Your task to perform on an android device: install app "Instagram" Image 0: 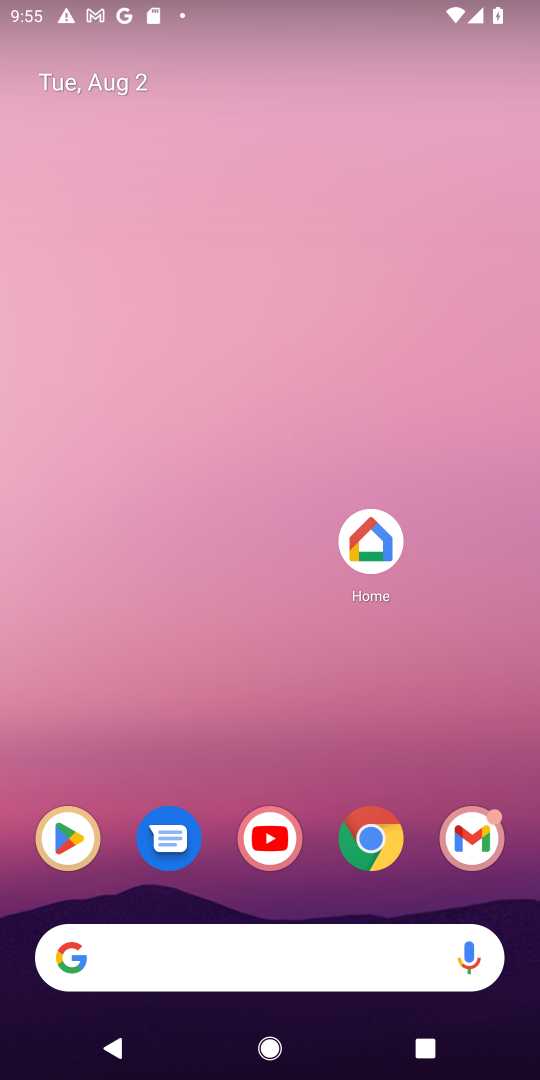
Step 0: press home button
Your task to perform on an android device: install app "Instagram" Image 1: 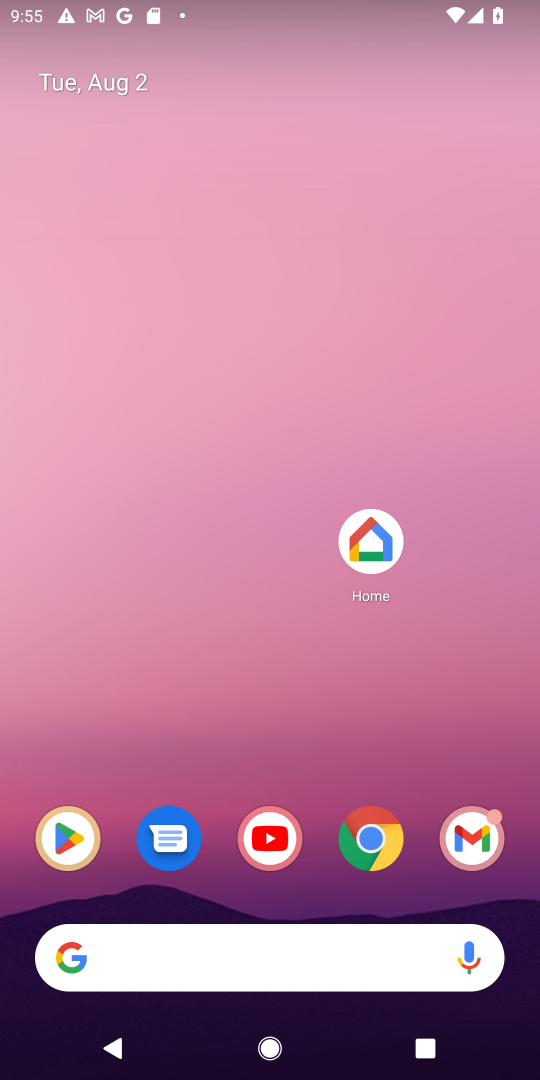
Step 1: drag from (257, 767) to (261, 78)
Your task to perform on an android device: install app "Instagram" Image 2: 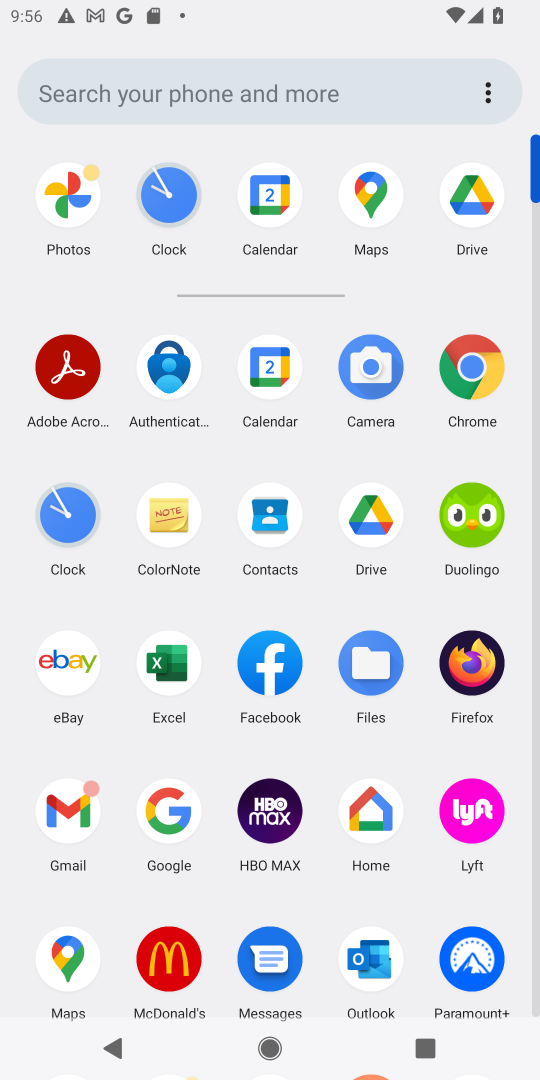
Step 2: drag from (419, 755) to (411, 426)
Your task to perform on an android device: install app "Instagram" Image 3: 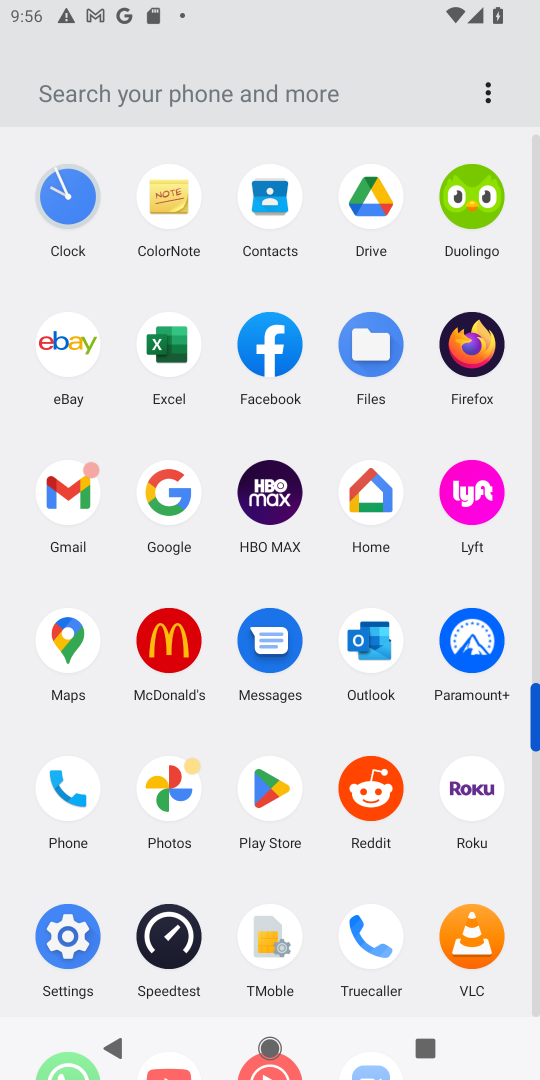
Step 3: click (259, 777)
Your task to perform on an android device: install app "Instagram" Image 4: 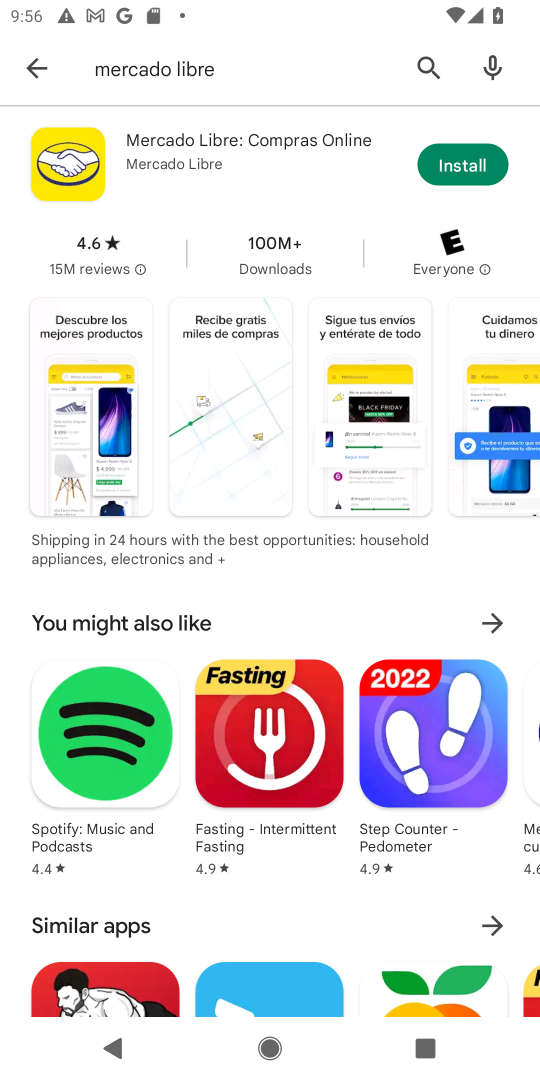
Step 4: click (426, 67)
Your task to perform on an android device: install app "Instagram" Image 5: 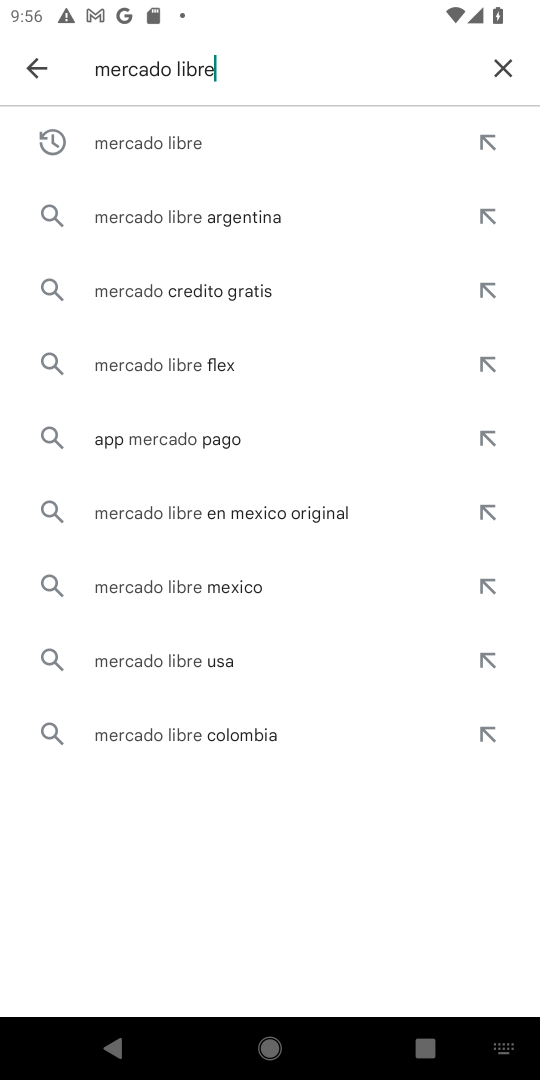
Step 5: click (499, 68)
Your task to perform on an android device: install app "Instagram" Image 6: 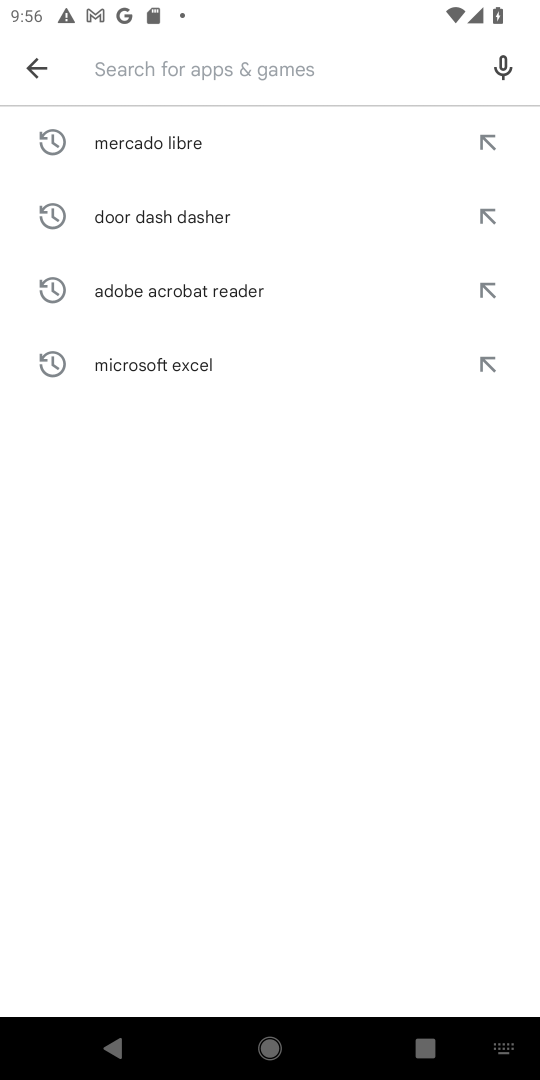
Step 6: type "instagram"
Your task to perform on an android device: install app "Instagram" Image 7: 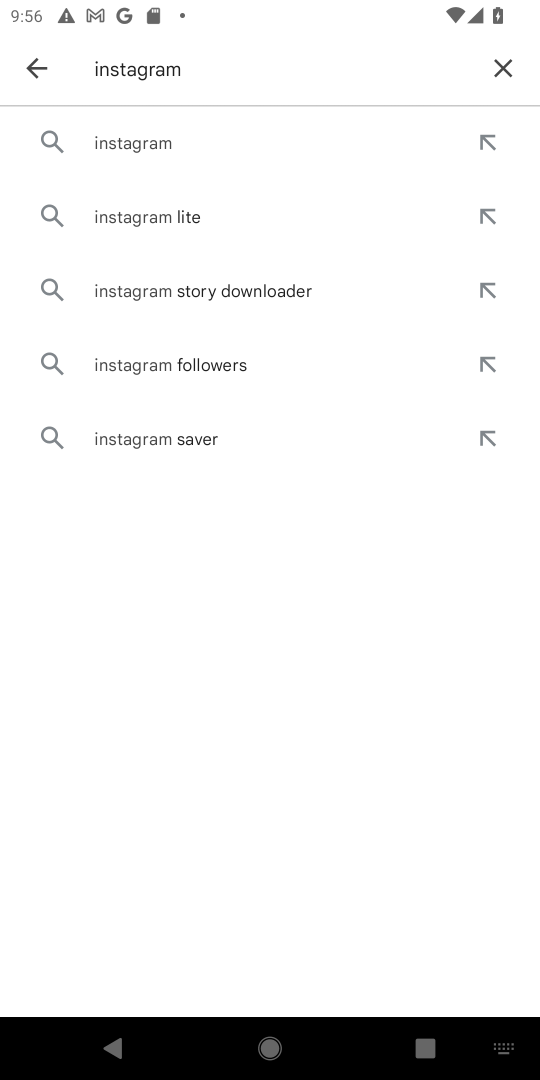
Step 7: click (252, 143)
Your task to perform on an android device: install app "Instagram" Image 8: 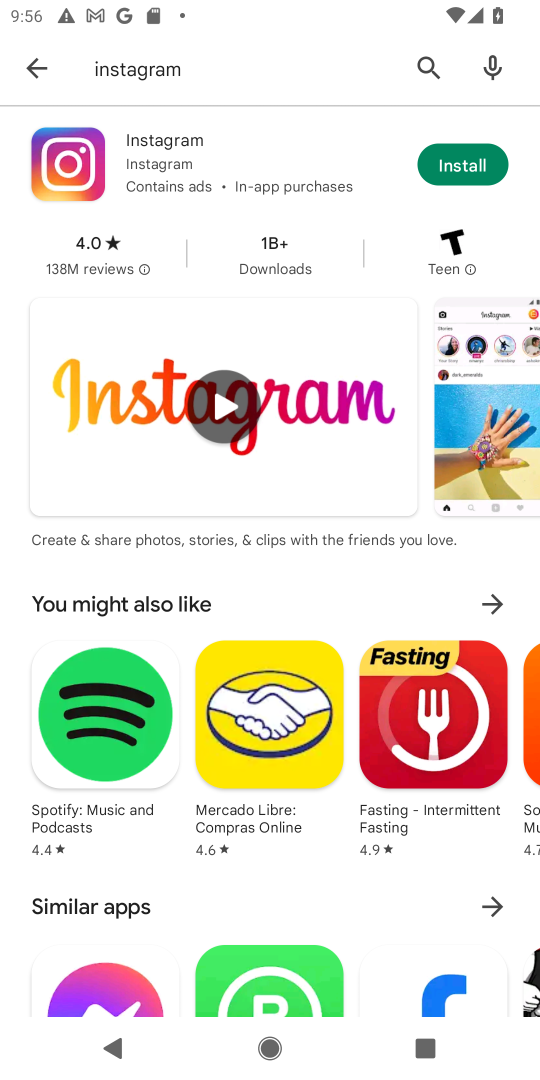
Step 8: click (458, 158)
Your task to perform on an android device: install app "Instagram" Image 9: 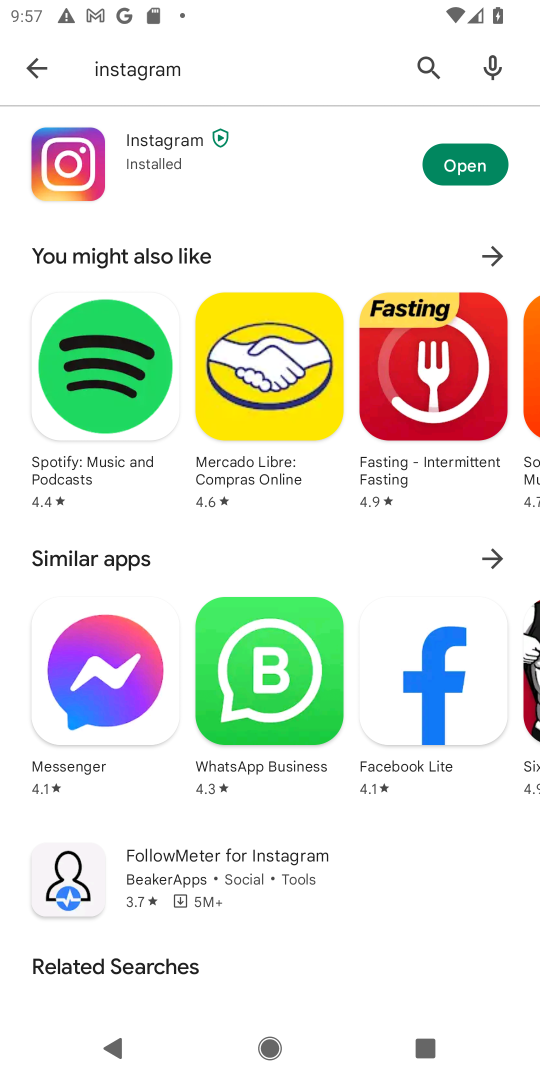
Step 9: task complete